Your task to perform on an android device: toggle location history Image 0: 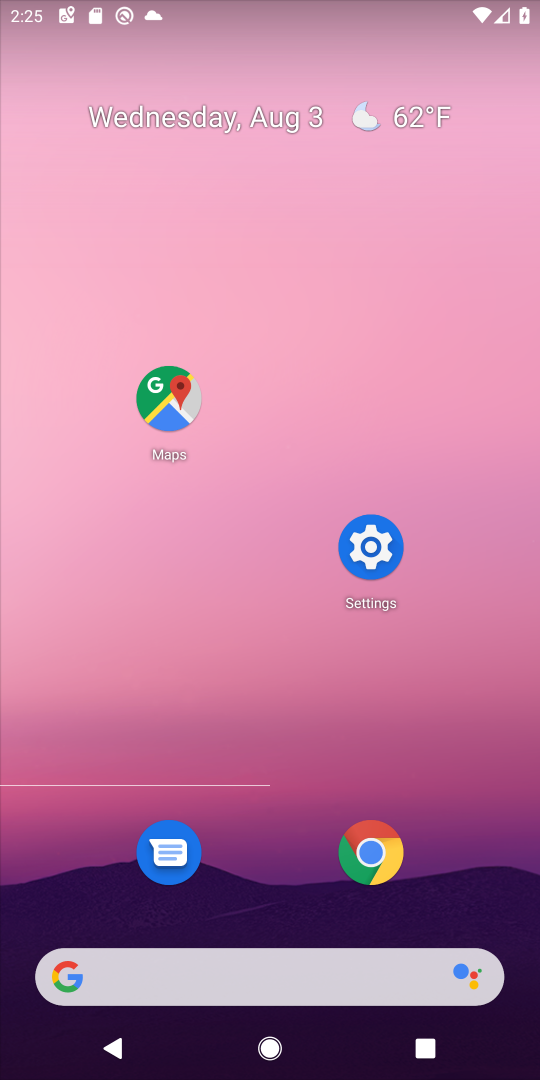
Step 0: click (166, 406)
Your task to perform on an android device: toggle location history Image 1: 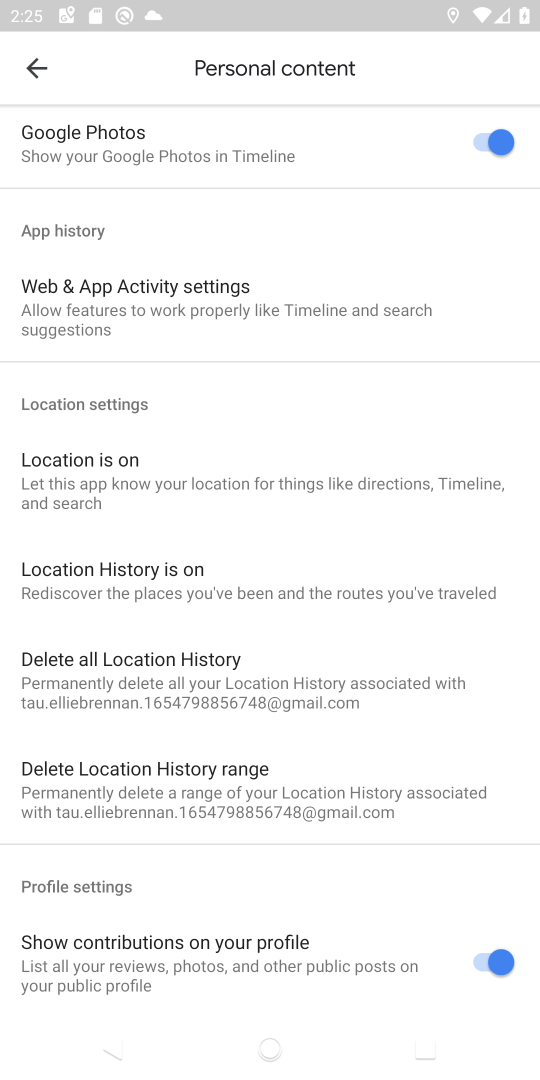
Step 1: click (34, 72)
Your task to perform on an android device: toggle location history Image 2: 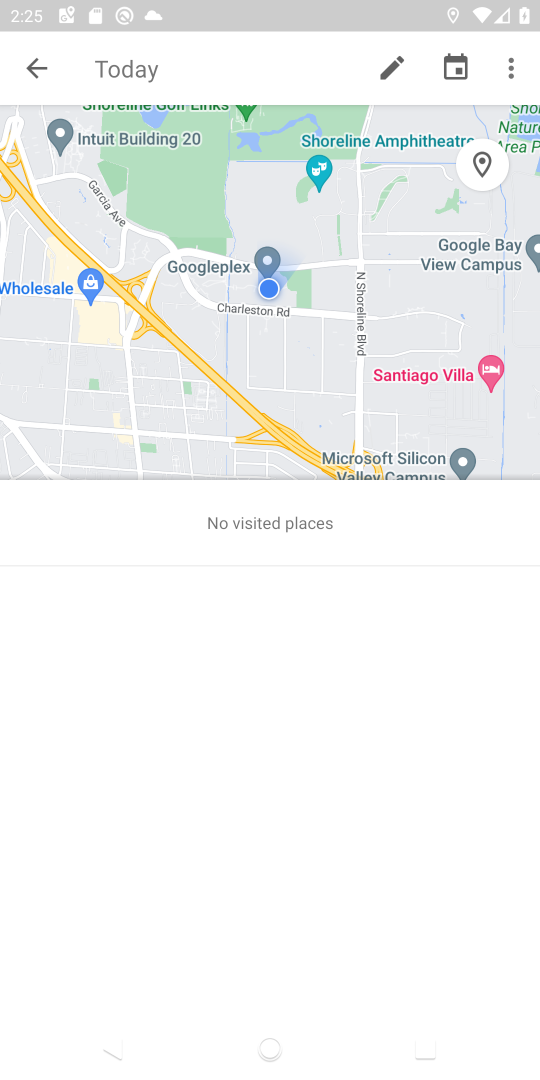
Step 2: click (504, 59)
Your task to perform on an android device: toggle location history Image 3: 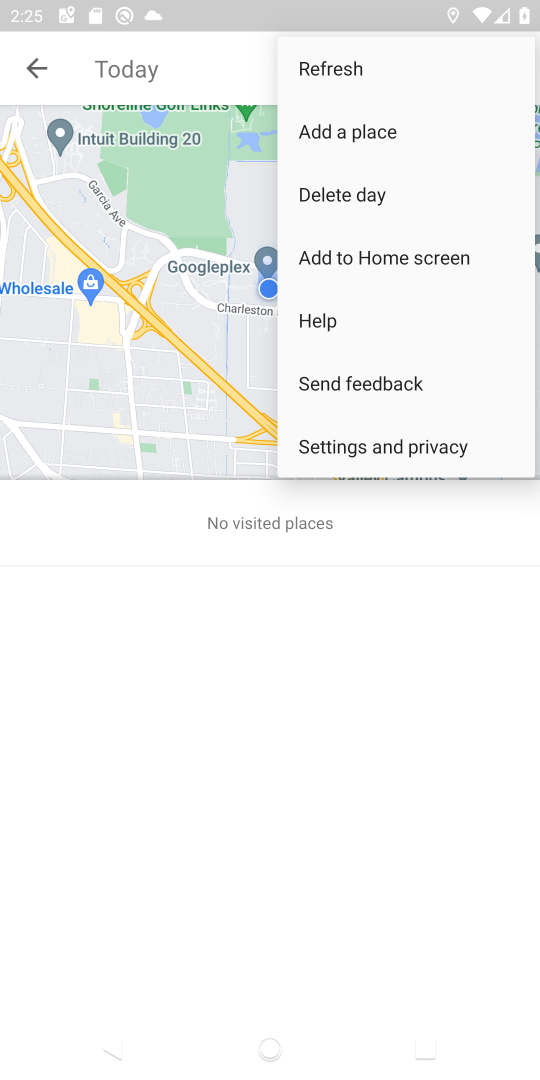
Step 3: click (393, 445)
Your task to perform on an android device: toggle location history Image 4: 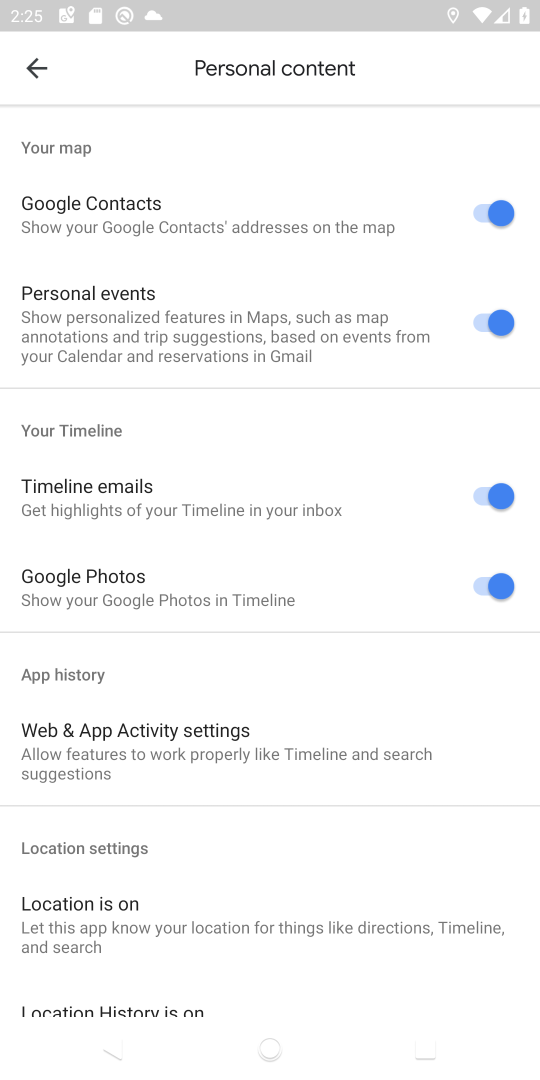
Step 4: drag from (169, 853) to (285, 408)
Your task to perform on an android device: toggle location history Image 5: 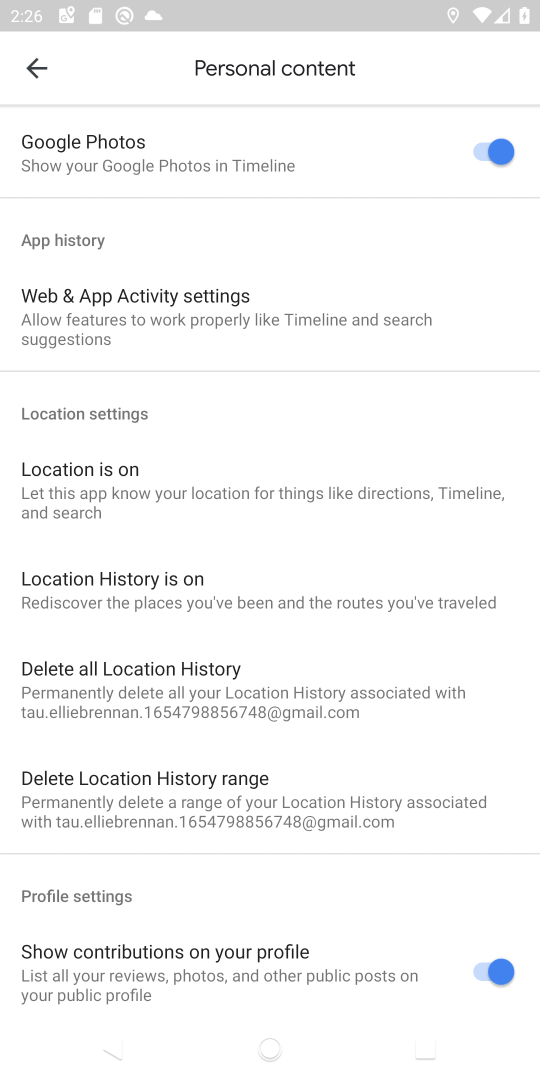
Step 5: click (148, 582)
Your task to perform on an android device: toggle location history Image 6: 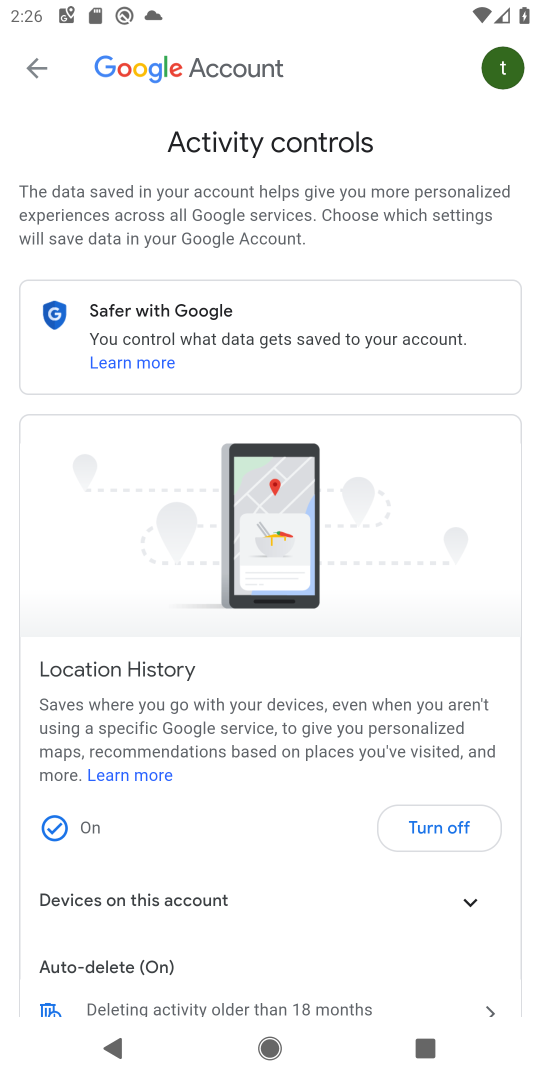
Step 6: click (443, 817)
Your task to perform on an android device: toggle location history Image 7: 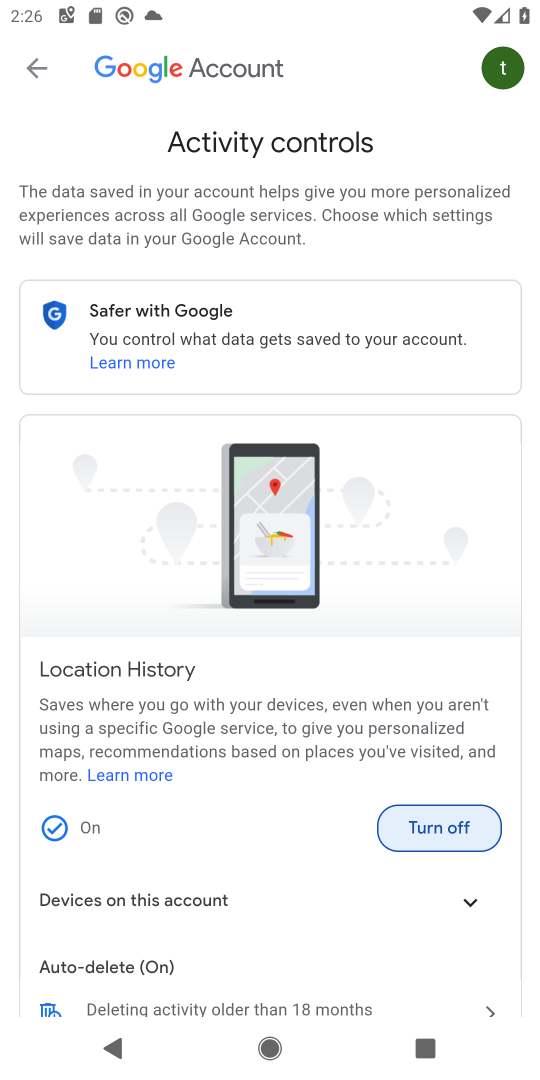
Step 7: click (435, 828)
Your task to perform on an android device: toggle location history Image 8: 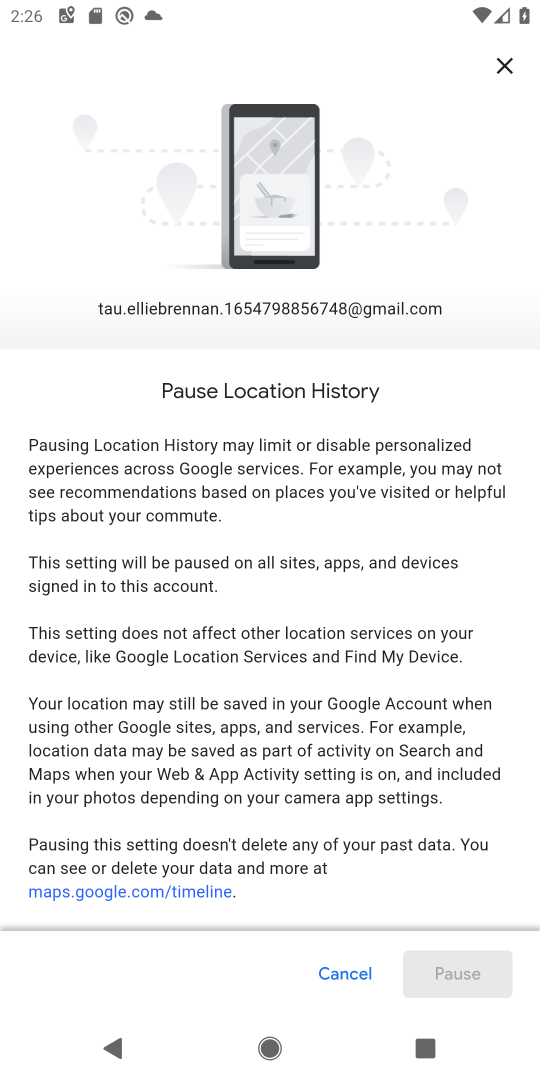
Step 8: drag from (372, 855) to (503, 162)
Your task to perform on an android device: toggle location history Image 9: 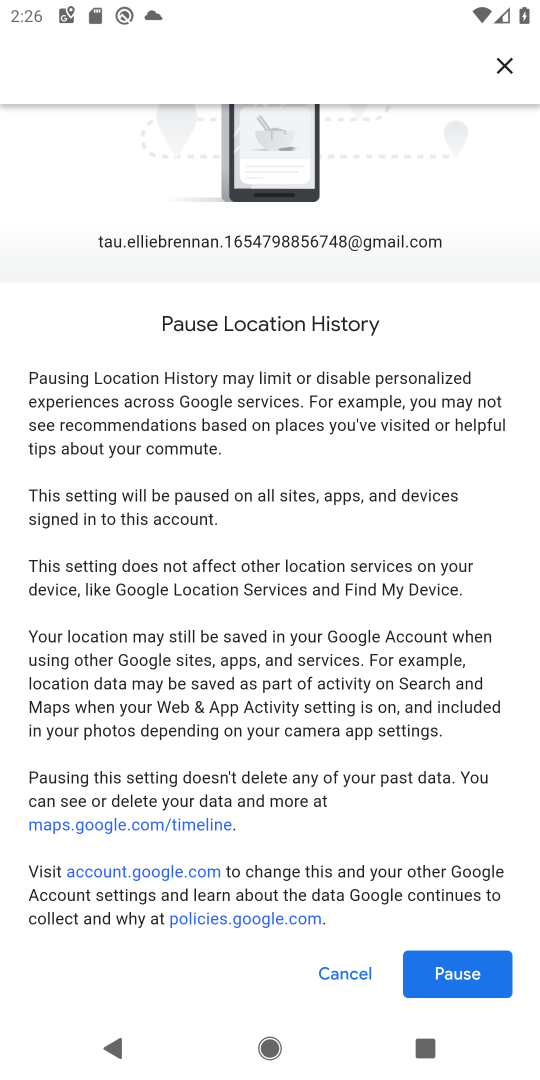
Step 9: drag from (353, 778) to (474, 72)
Your task to perform on an android device: toggle location history Image 10: 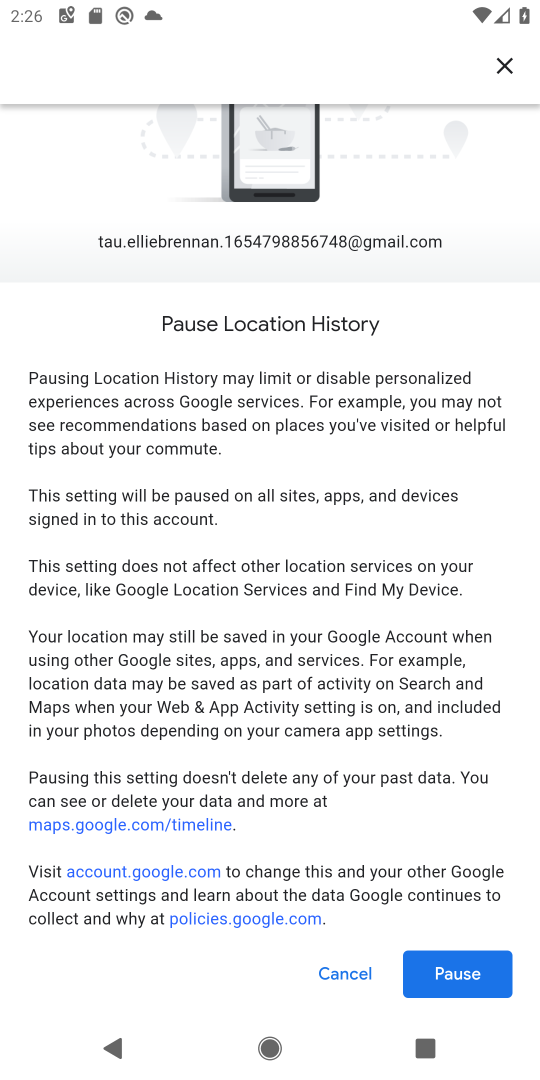
Step 10: click (455, 982)
Your task to perform on an android device: toggle location history Image 11: 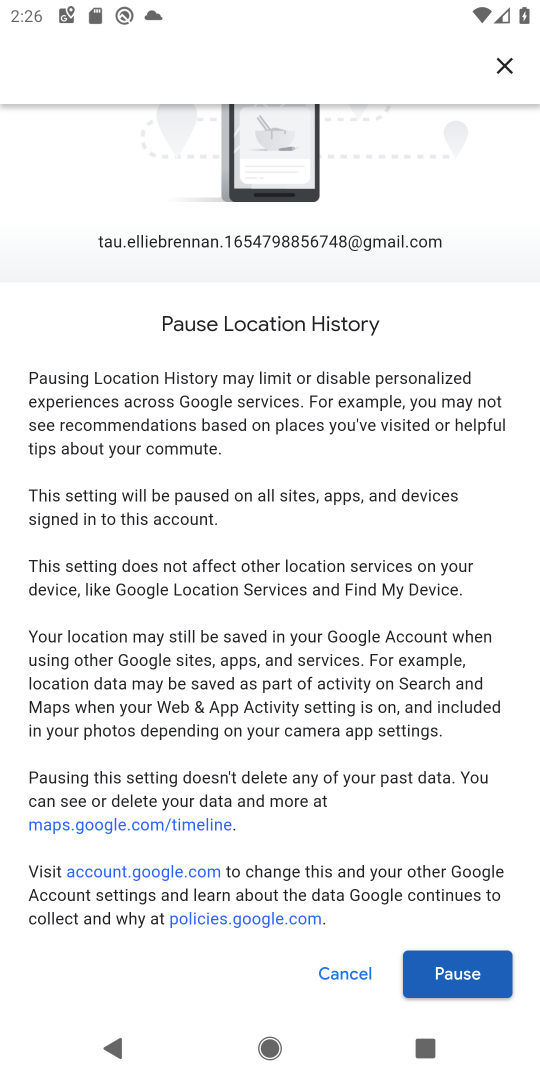
Step 11: click (455, 983)
Your task to perform on an android device: toggle location history Image 12: 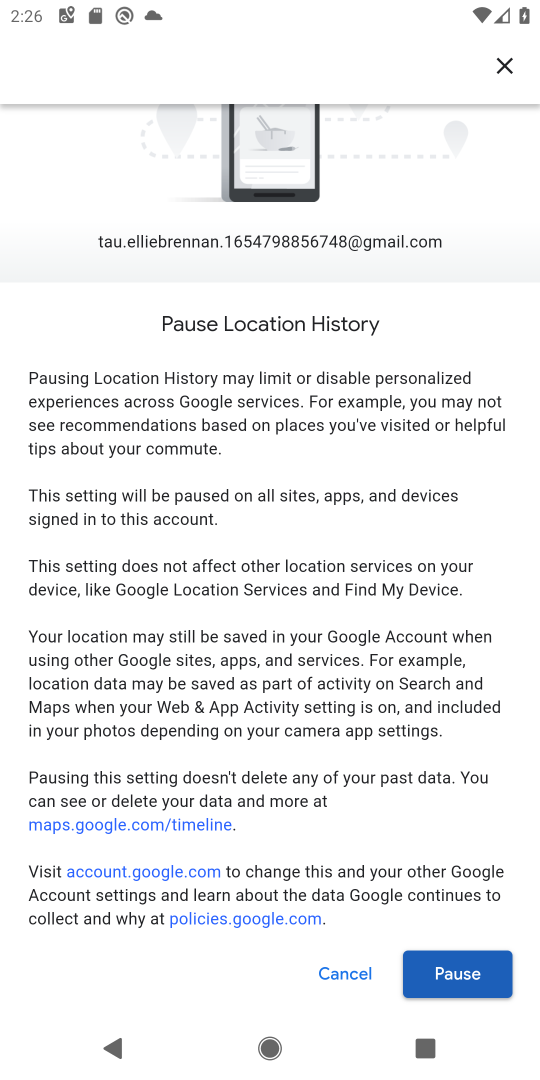
Step 12: click (448, 961)
Your task to perform on an android device: toggle location history Image 13: 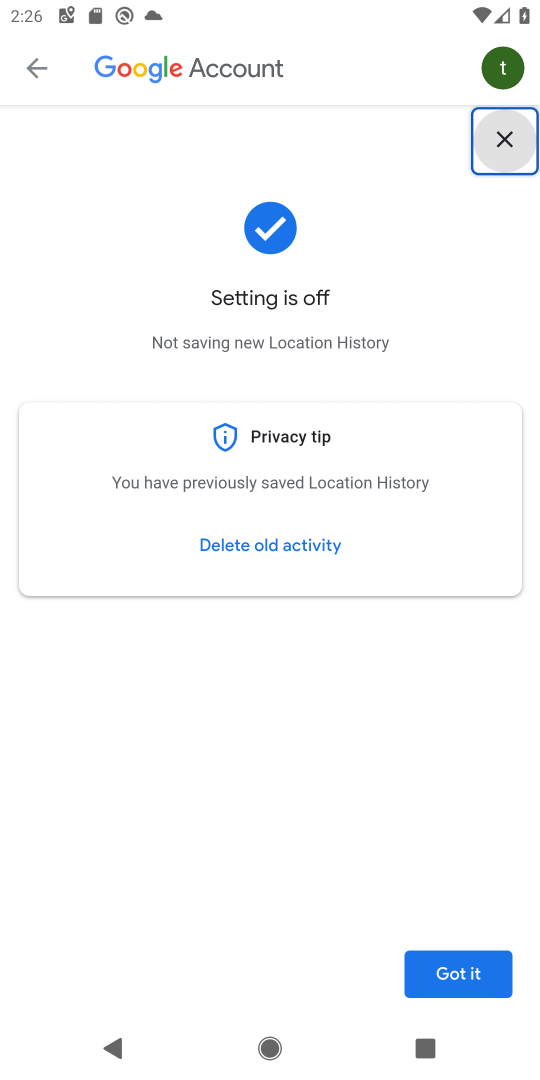
Step 13: click (467, 974)
Your task to perform on an android device: toggle location history Image 14: 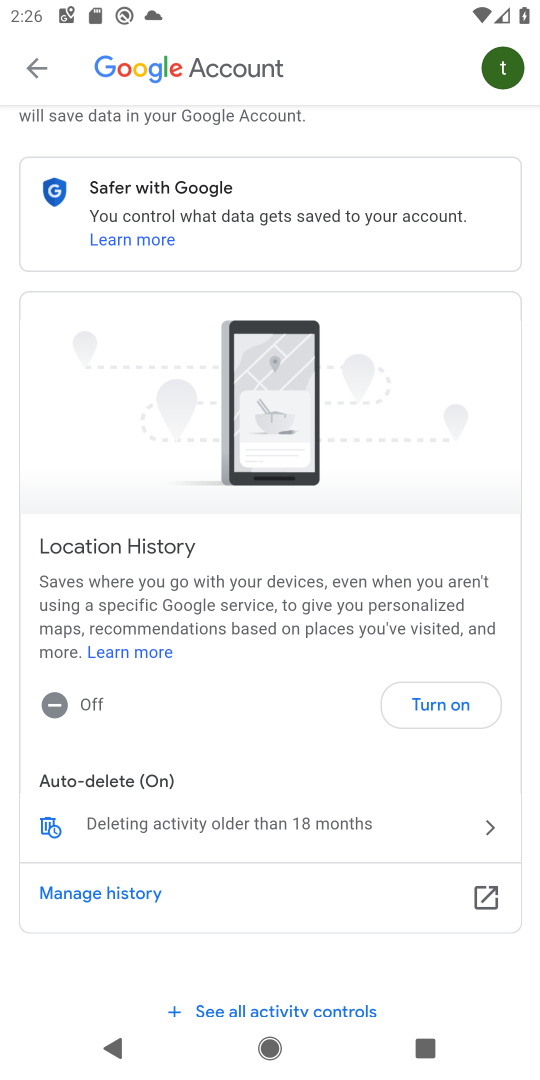
Step 14: task complete